Your task to perform on an android device: Open Google Image 0: 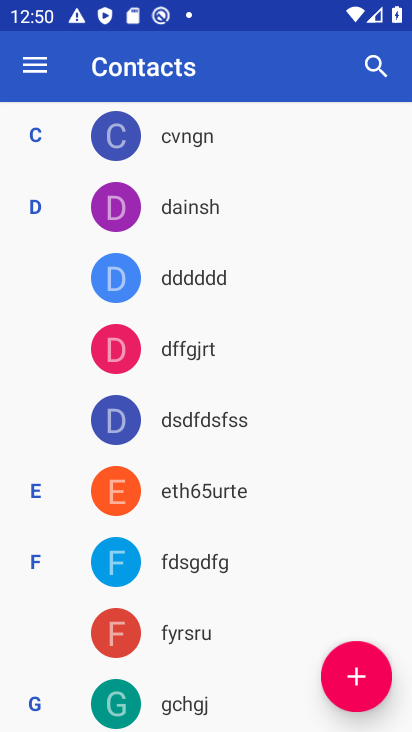
Step 0: press home button
Your task to perform on an android device: Open Google Image 1: 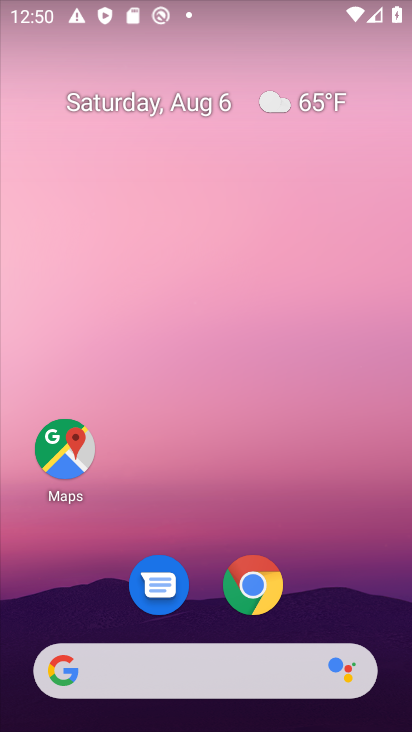
Step 1: click (142, 671)
Your task to perform on an android device: Open Google Image 2: 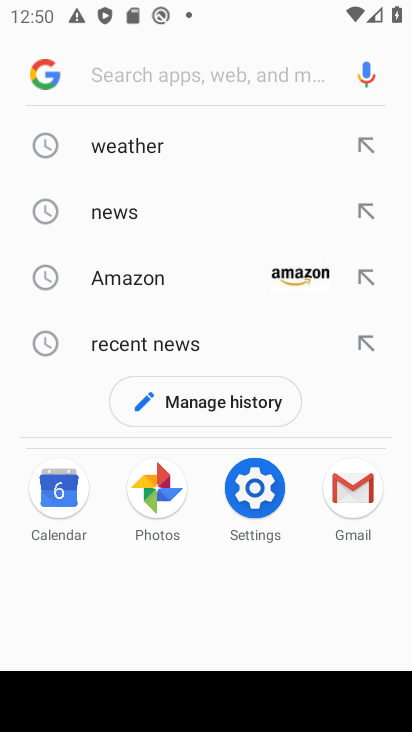
Step 2: click (43, 82)
Your task to perform on an android device: Open Google Image 3: 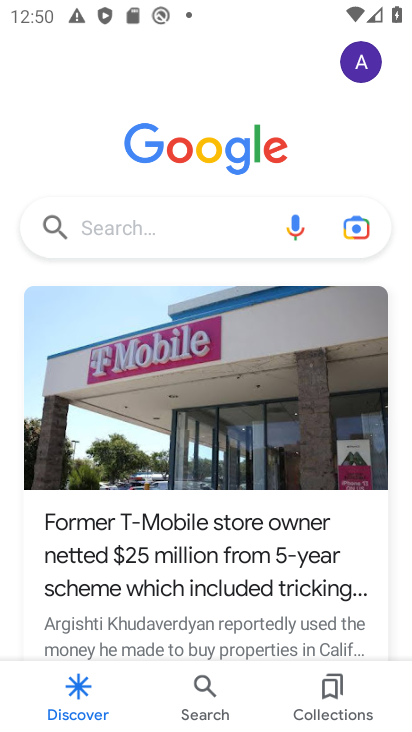
Step 3: task complete